Your task to perform on an android device: empty trash in the gmail app Image 0: 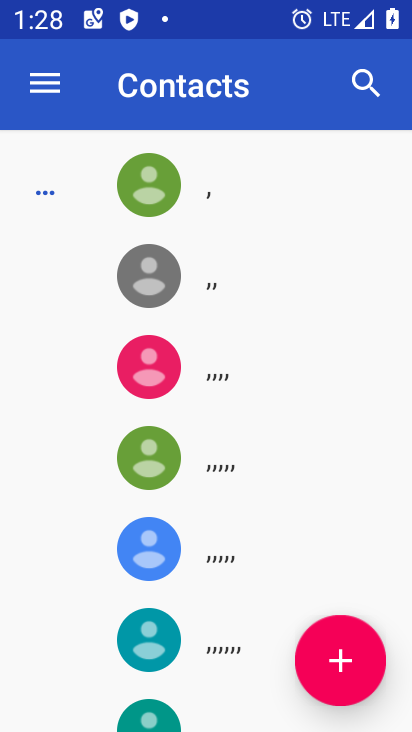
Step 0: press home button
Your task to perform on an android device: empty trash in the gmail app Image 1: 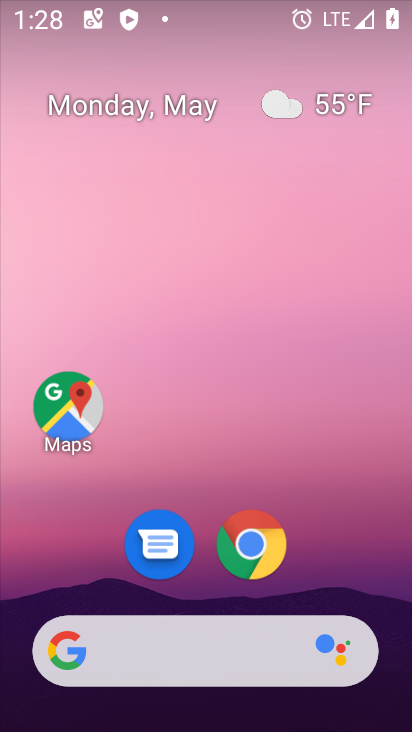
Step 1: drag from (410, 660) to (358, 122)
Your task to perform on an android device: empty trash in the gmail app Image 2: 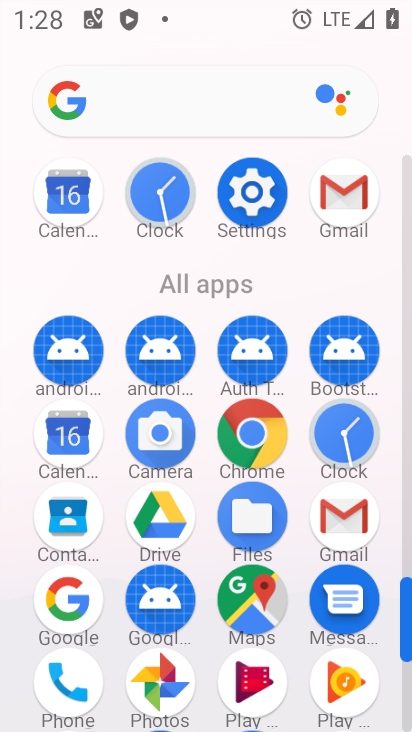
Step 2: click (407, 559)
Your task to perform on an android device: empty trash in the gmail app Image 3: 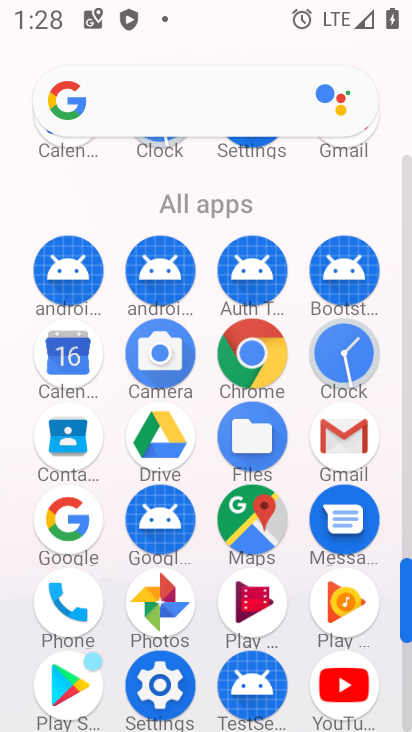
Step 3: click (345, 438)
Your task to perform on an android device: empty trash in the gmail app Image 4: 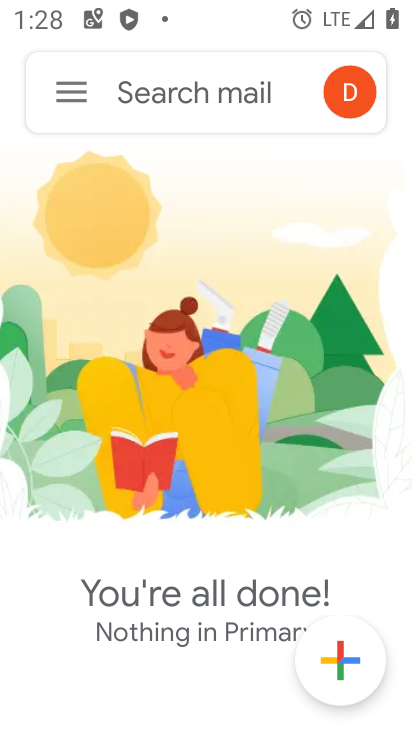
Step 4: click (69, 96)
Your task to perform on an android device: empty trash in the gmail app Image 5: 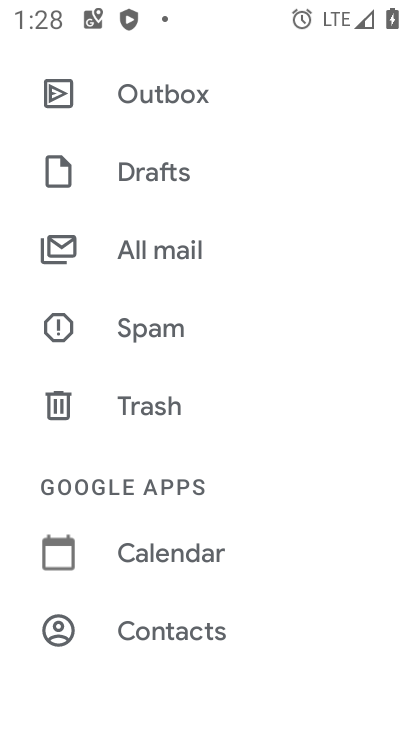
Step 5: click (158, 410)
Your task to perform on an android device: empty trash in the gmail app Image 6: 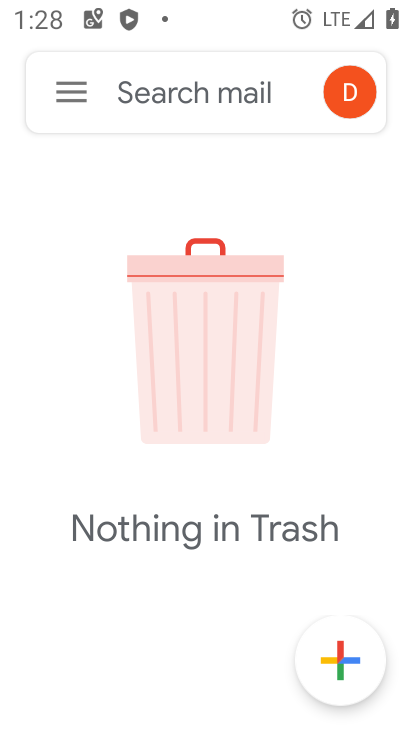
Step 6: task complete